Your task to perform on an android device: Open the calendar and show me this week's events? Image 0: 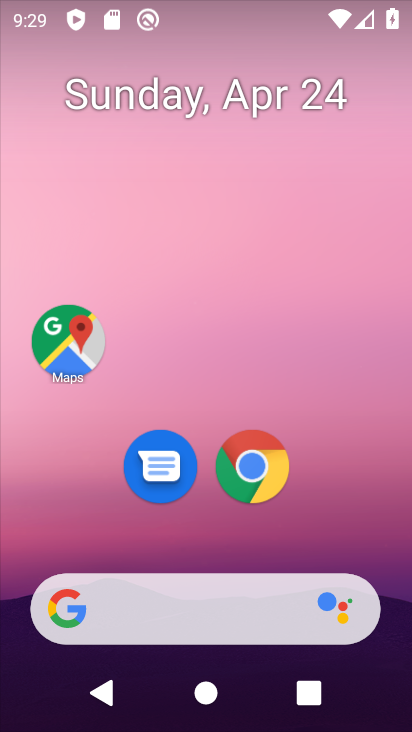
Step 0: drag from (348, 512) to (320, 11)
Your task to perform on an android device: Open the calendar and show me this week's events? Image 1: 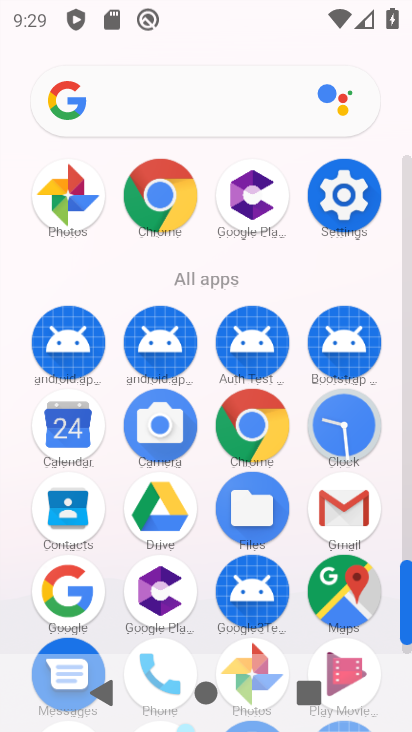
Step 1: click (53, 423)
Your task to perform on an android device: Open the calendar and show me this week's events? Image 2: 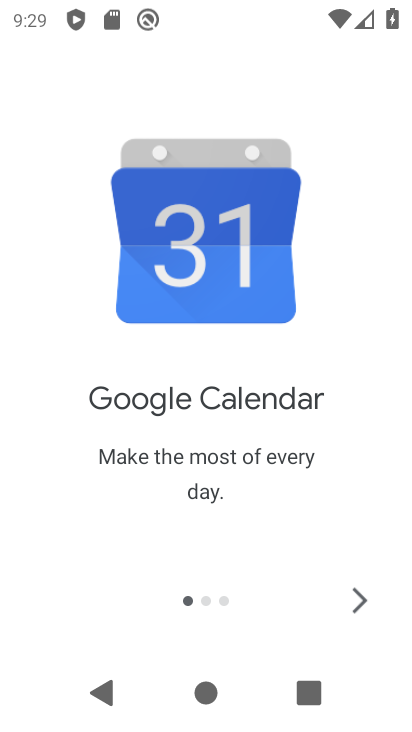
Step 2: click (364, 593)
Your task to perform on an android device: Open the calendar and show me this week's events? Image 3: 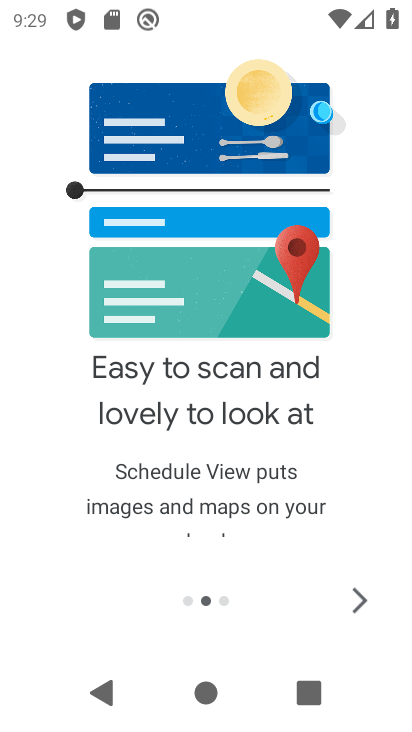
Step 3: click (370, 596)
Your task to perform on an android device: Open the calendar and show me this week's events? Image 4: 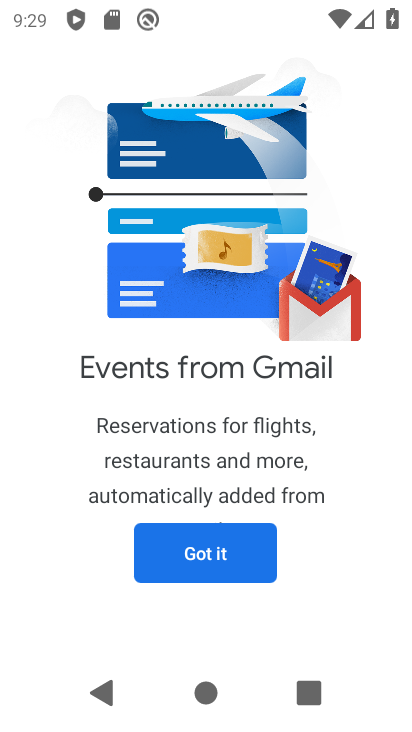
Step 4: click (229, 551)
Your task to perform on an android device: Open the calendar and show me this week's events? Image 5: 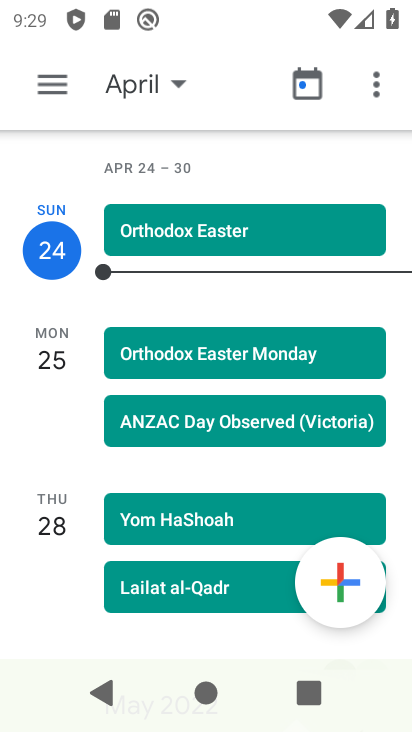
Step 5: click (58, 93)
Your task to perform on an android device: Open the calendar and show me this week's events? Image 6: 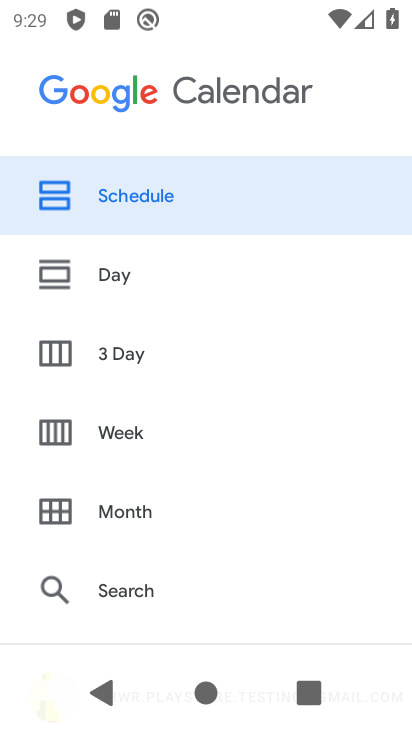
Step 6: click (140, 429)
Your task to perform on an android device: Open the calendar and show me this week's events? Image 7: 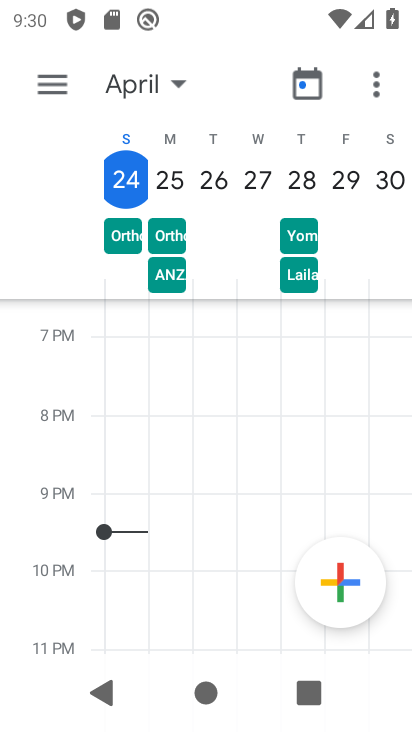
Step 7: task complete